Your task to perform on an android device: Open Wikipedia Image 0: 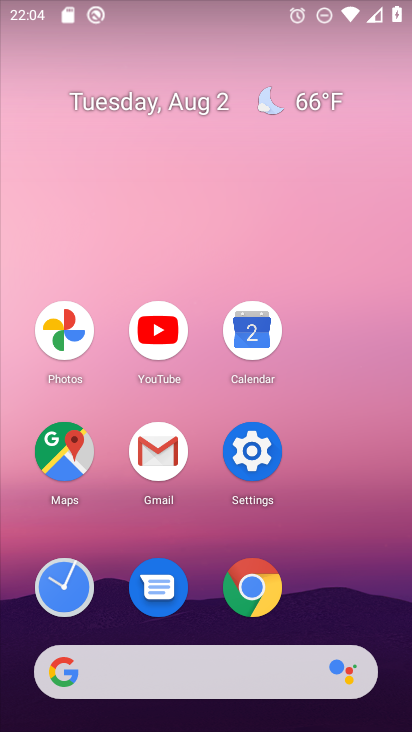
Step 0: click (253, 586)
Your task to perform on an android device: Open Wikipedia Image 1: 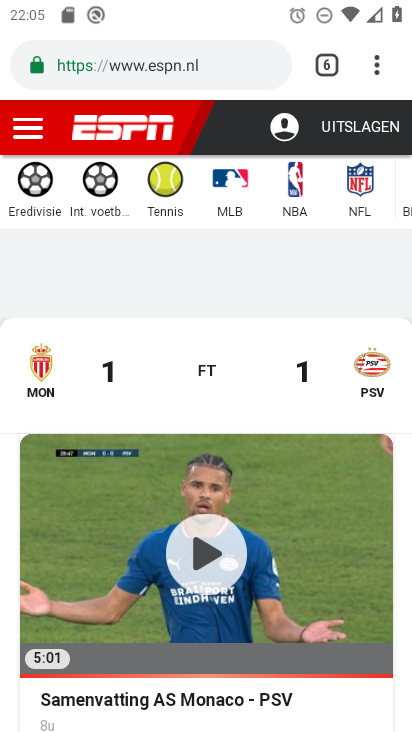
Step 1: click (379, 59)
Your task to perform on an android device: Open Wikipedia Image 2: 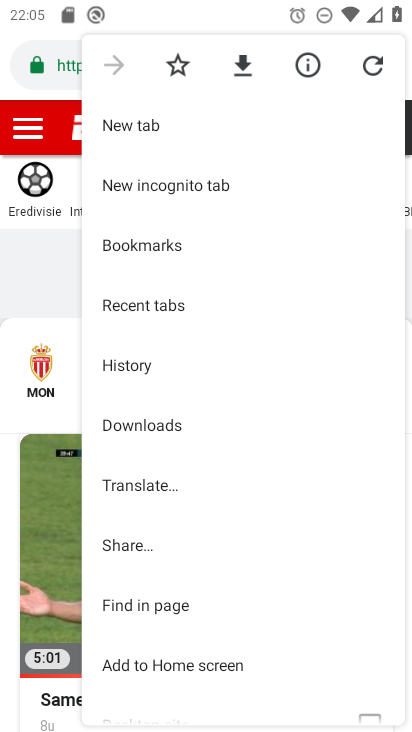
Step 2: click (137, 122)
Your task to perform on an android device: Open Wikipedia Image 3: 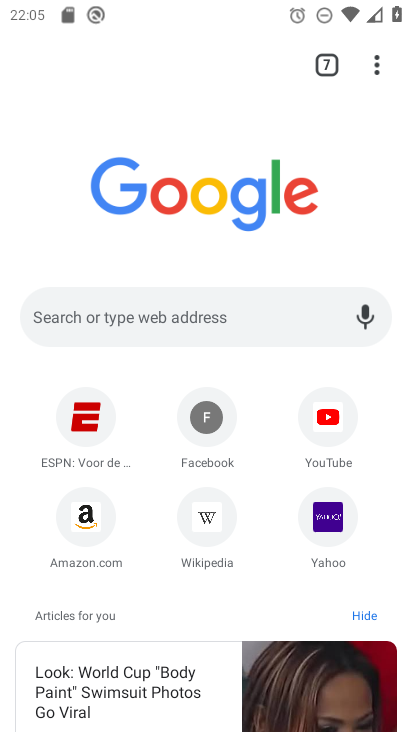
Step 3: click (208, 505)
Your task to perform on an android device: Open Wikipedia Image 4: 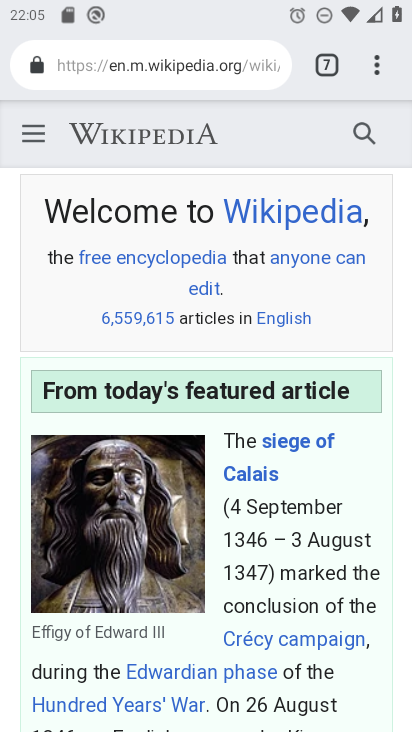
Step 4: task complete